Your task to perform on an android device: check out phone information Image 0: 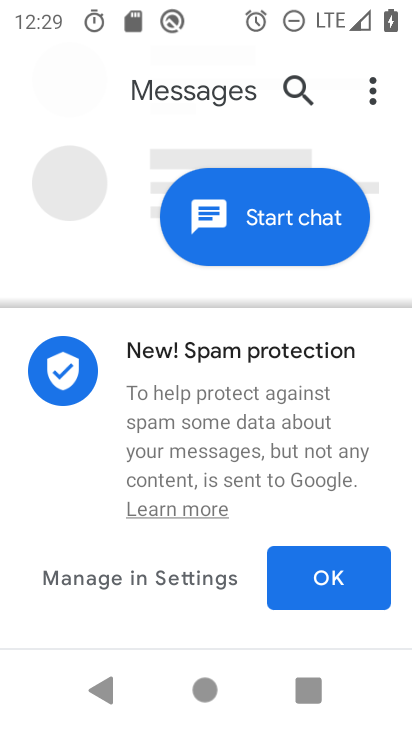
Step 0: press home button
Your task to perform on an android device: check out phone information Image 1: 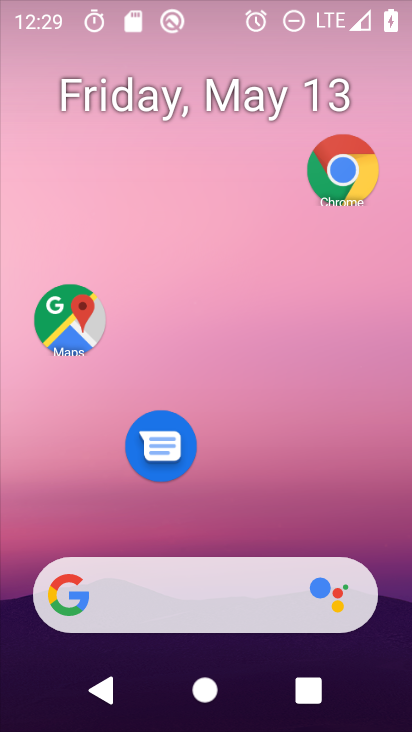
Step 1: drag from (202, 605) to (205, 55)
Your task to perform on an android device: check out phone information Image 2: 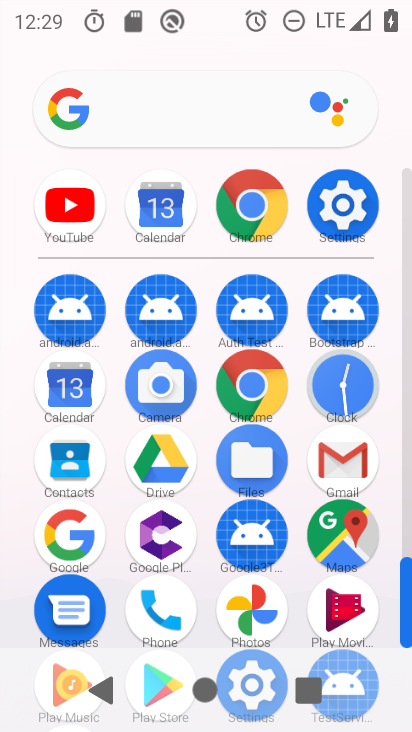
Step 2: click (343, 210)
Your task to perform on an android device: check out phone information Image 3: 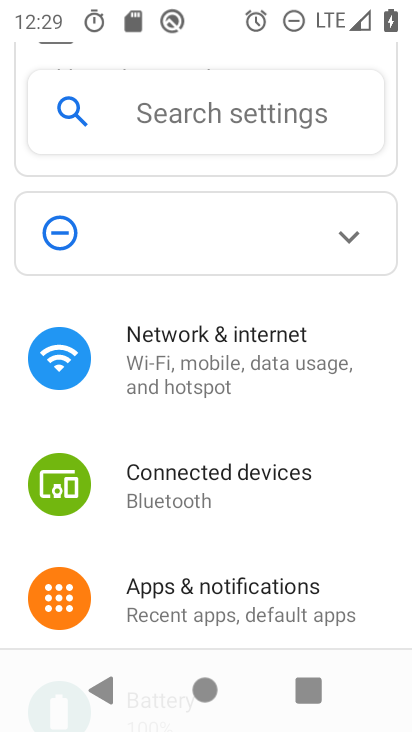
Step 3: drag from (259, 580) to (277, 111)
Your task to perform on an android device: check out phone information Image 4: 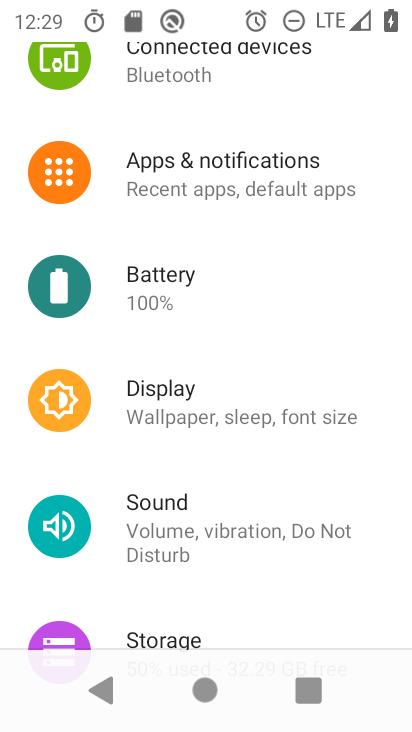
Step 4: drag from (316, 614) to (322, 180)
Your task to perform on an android device: check out phone information Image 5: 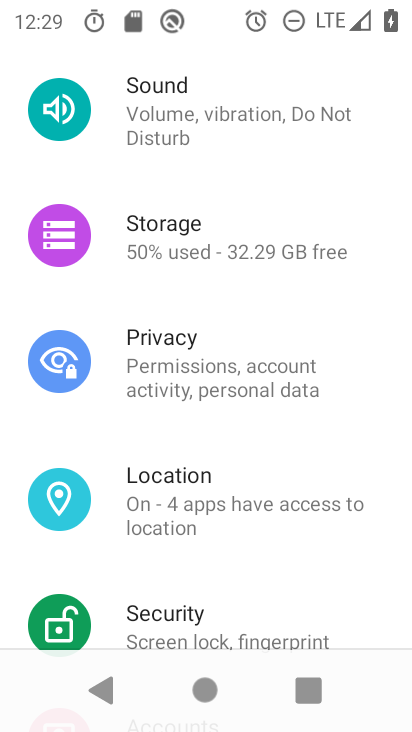
Step 5: drag from (275, 607) to (322, 147)
Your task to perform on an android device: check out phone information Image 6: 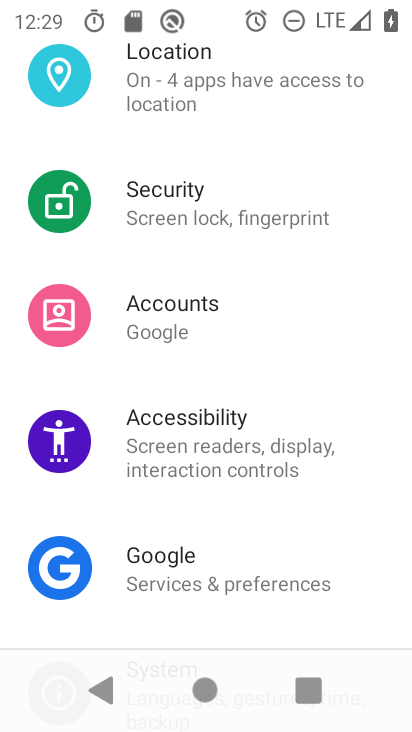
Step 6: drag from (283, 617) to (321, 64)
Your task to perform on an android device: check out phone information Image 7: 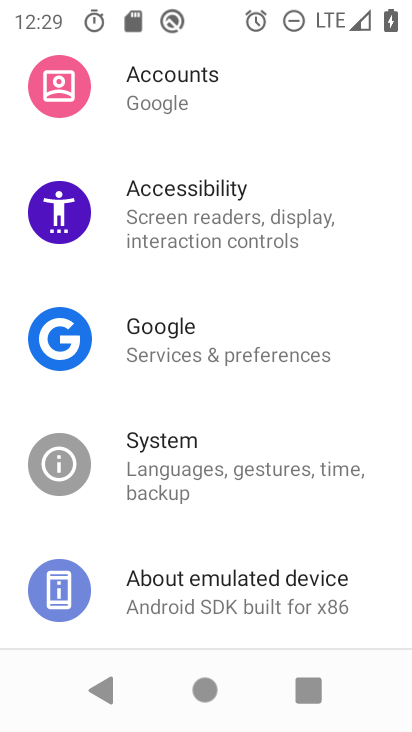
Step 7: click (289, 593)
Your task to perform on an android device: check out phone information Image 8: 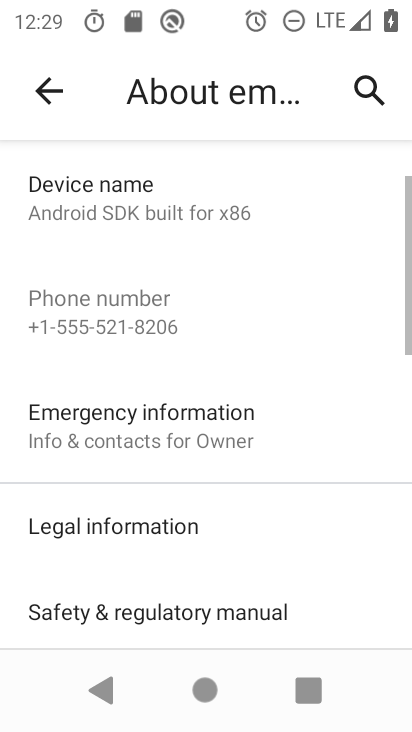
Step 8: task complete